Your task to perform on an android device: turn off airplane mode Image 0: 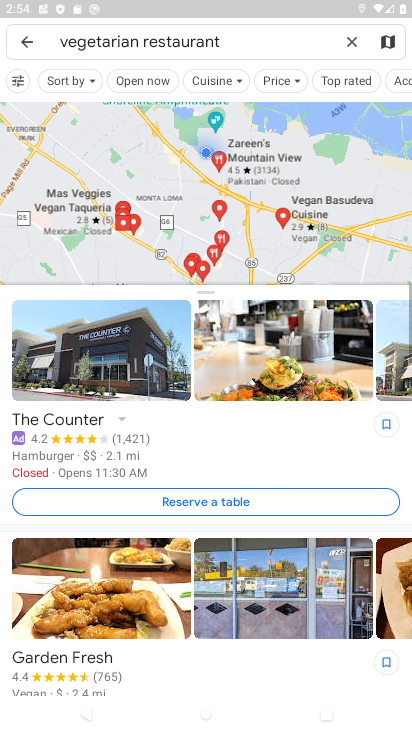
Step 0: press home button
Your task to perform on an android device: turn off airplane mode Image 1: 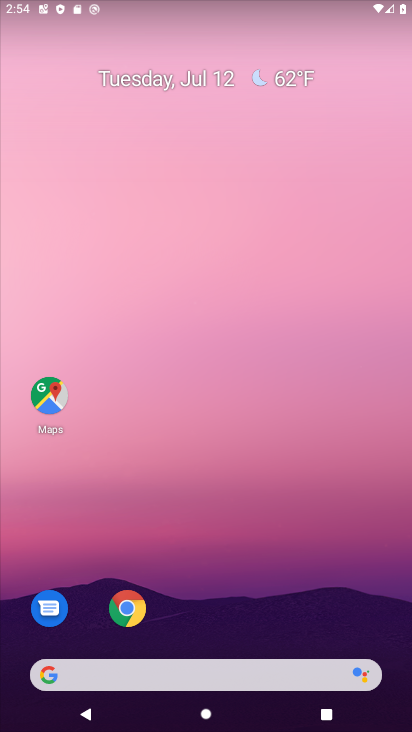
Step 1: drag from (207, 677) to (324, 201)
Your task to perform on an android device: turn off airplane mode Image 2: 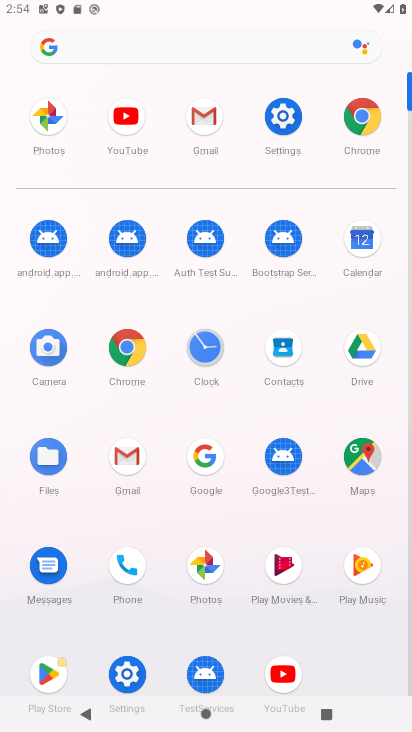
Step 2: click (286, 118)
Your task to perform on an android device: turn off airplane mode Image 3: 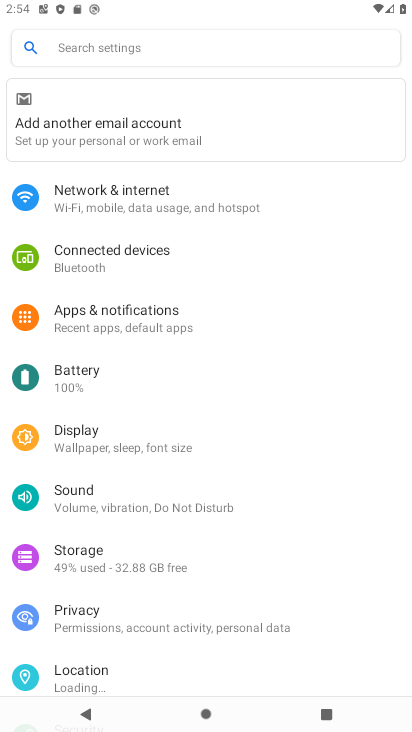
Step 3: click (175, 215)
Your task to perform on an android device: turn off airplane mode Image 4: 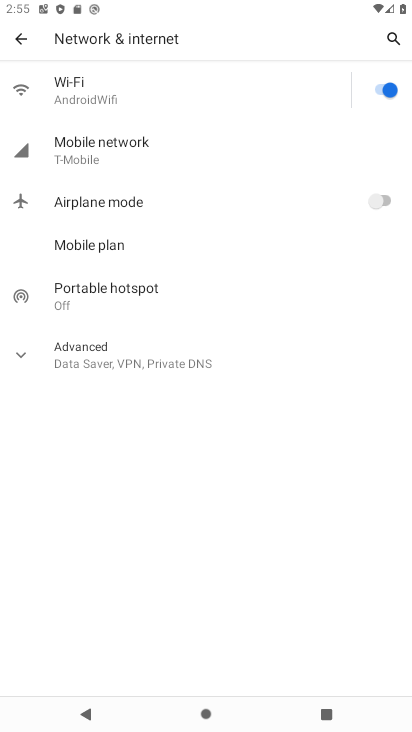
Step 4: task complete